Your task to perform on an android device: find which apps use the phone's location Image 0: 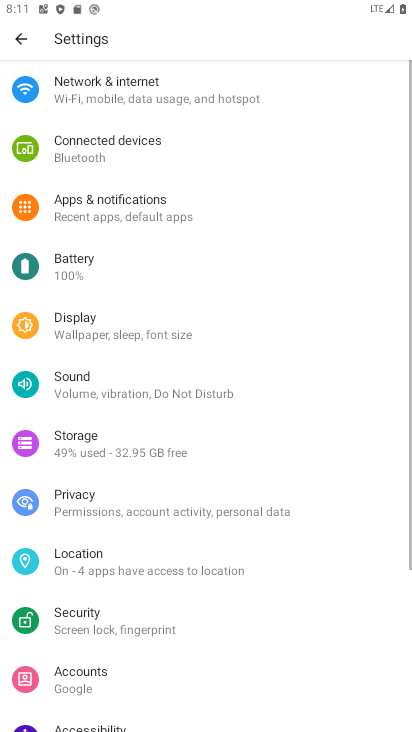
Step 0: press home button
Your task to perform on an android device: find which apps use the phone's location Image 1: 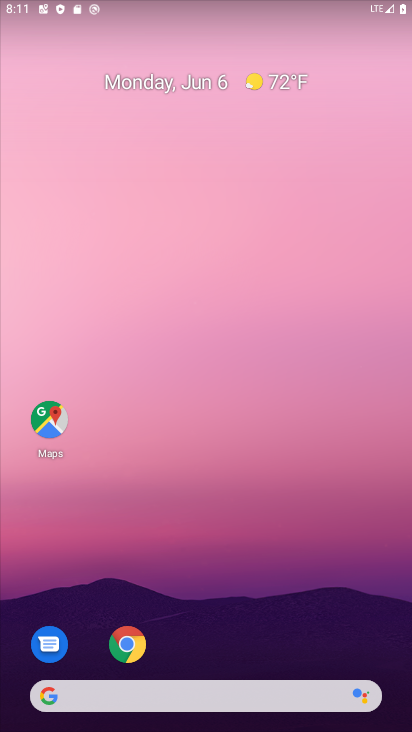
Step 1: drag from (316, 730) to (53, 163)
Your task to perform on an android device: find which apps use the phone's location Image 2: 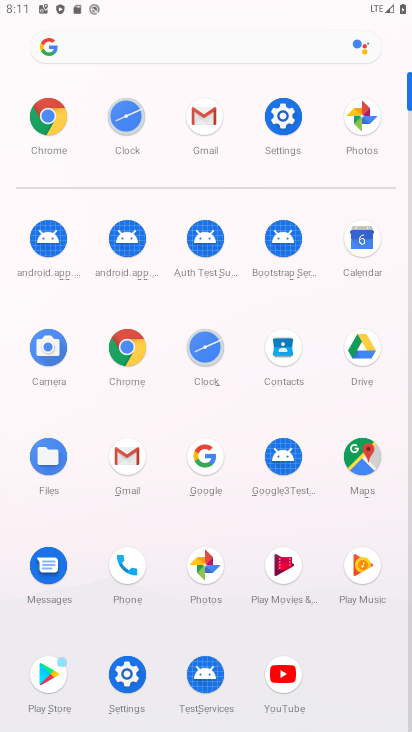
Step 2: click (276, 110)
Your task to perform on an android device: find which apps use the phone's location Image 3: 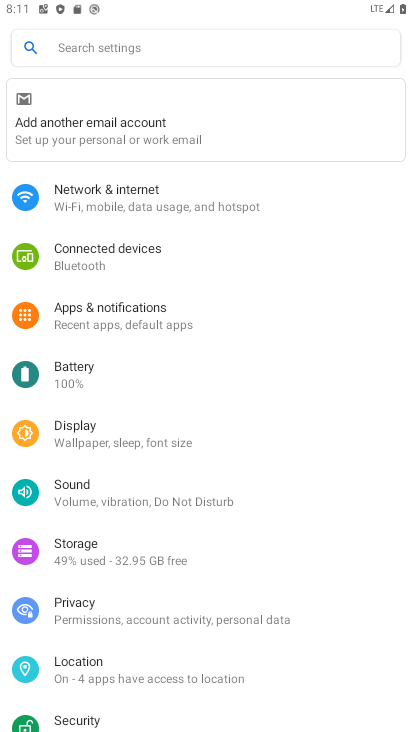
Step 3: click (154, 49)
Your task to perform on an android device: find which apps use the phone's location Image 4: 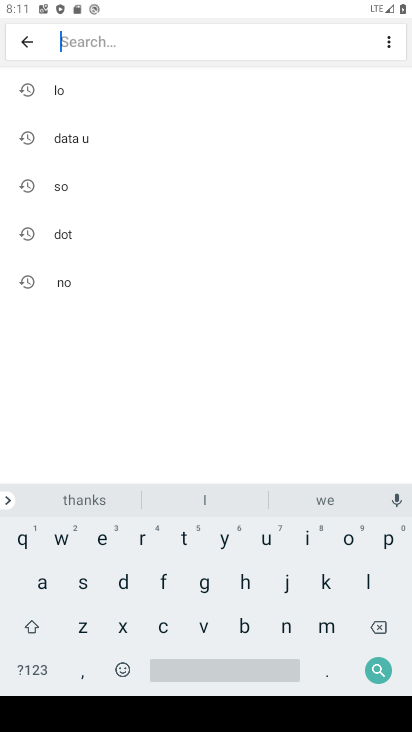
Step 4: click (109, 101)
Your task to perform on an android device: find which apps use the phone's location Image 5: 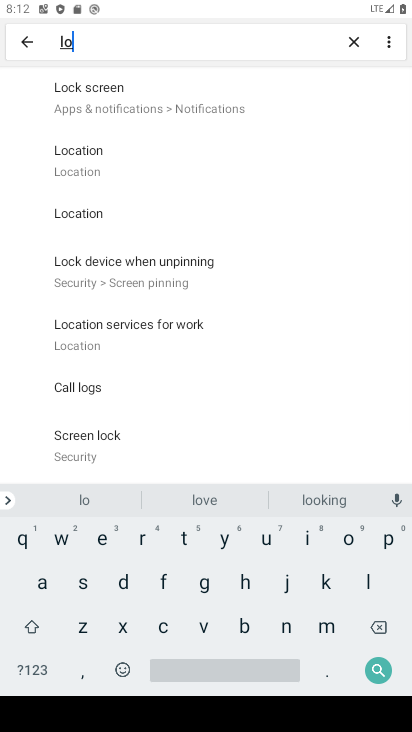
Step 5: click (124, 162)
Your task to perform on an android device: find which apps use the phone's location Image 6: 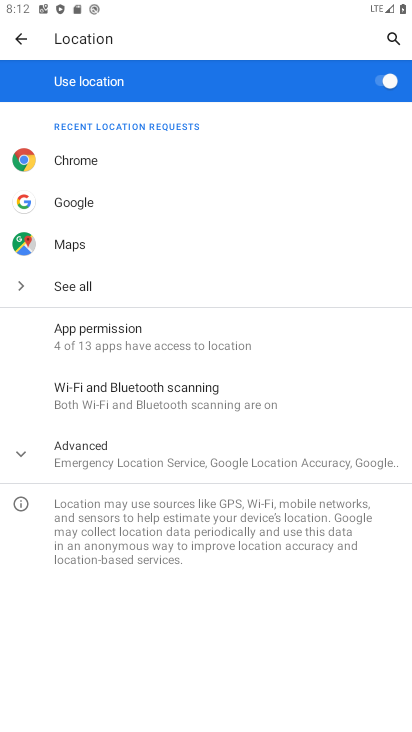
Step 6: task complete